Your task to perform on an android device: Add "bose quietcomfort 35" to the cart on ebay.com Image 0: 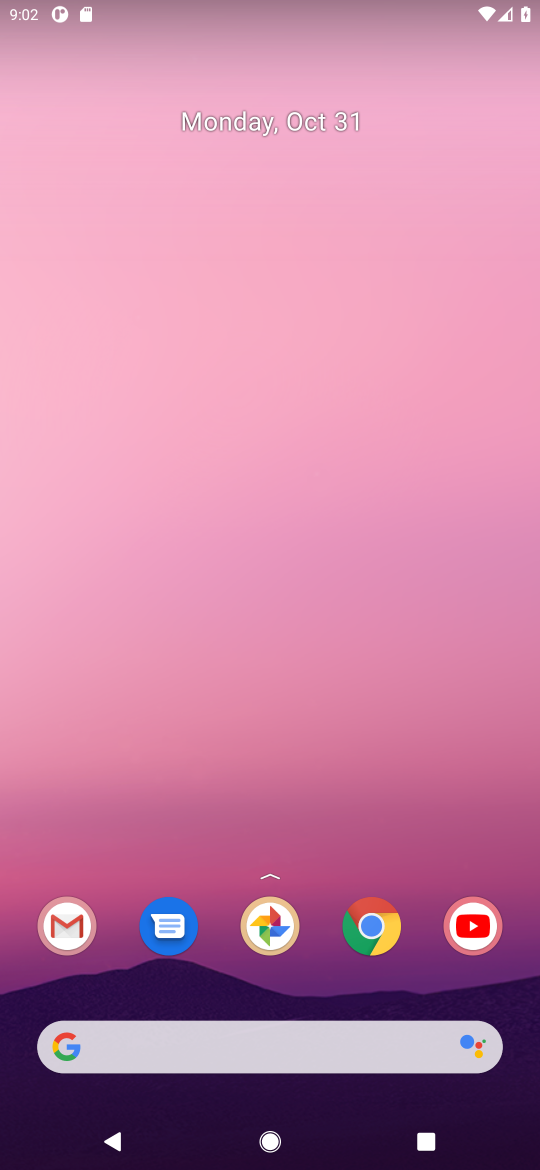
Step 0: click (378, 940)
Your task to perform on an android device: Add "bose quietcomfort 35" to the cart on ebay.com Image 1: 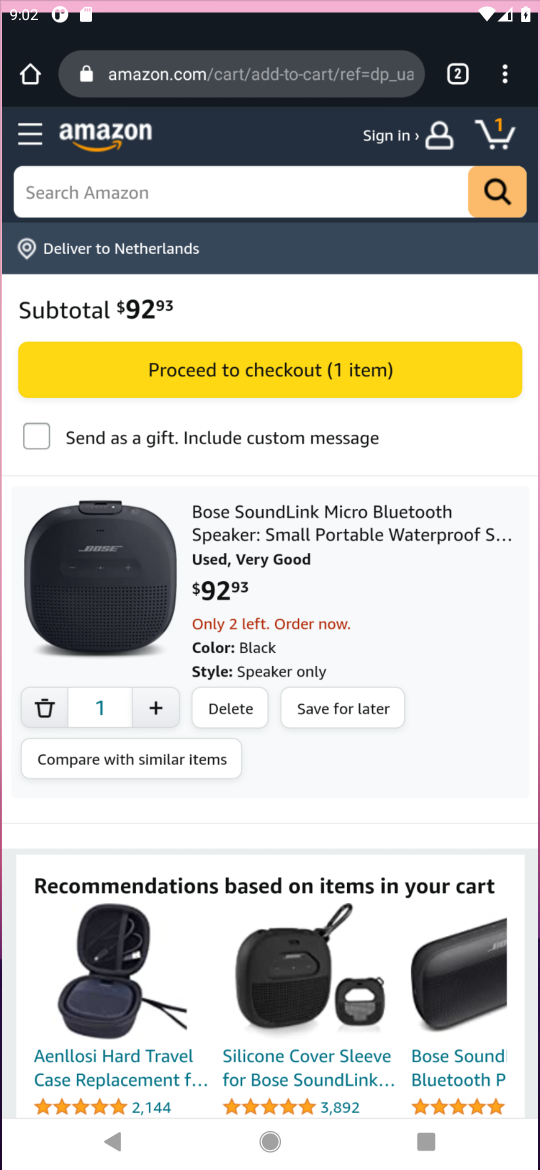
Step 1: click (378, 940)
Your task to perform on an android device: Add "bose quietcomfort 35" to the cart on ebay.com Image 2: 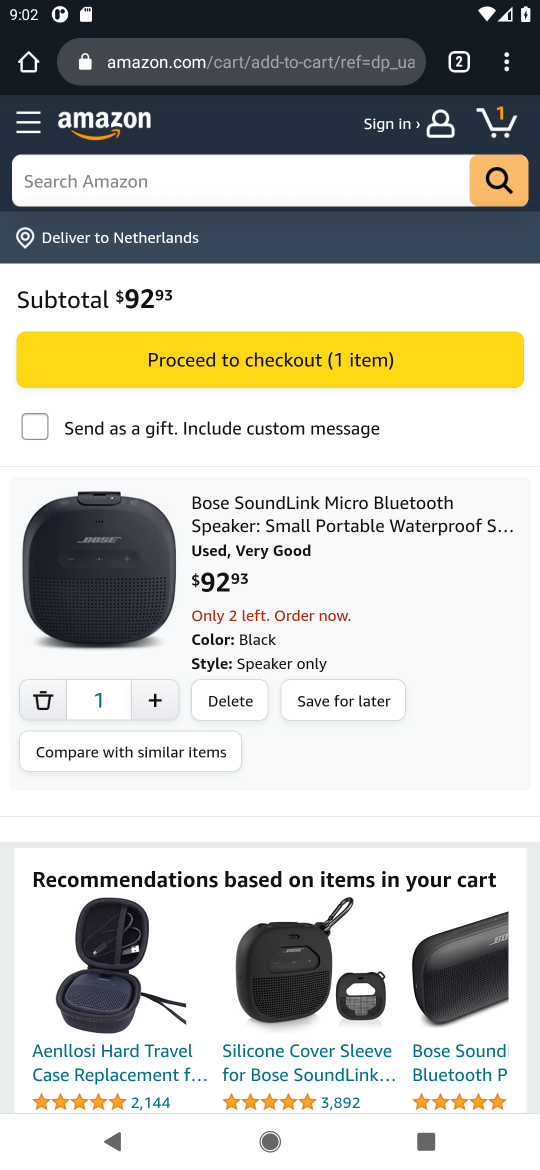
Step 2: click (461, 65)
Your task to perform on an android device: Add "bose quietcomfort 35" to the cart on ebay.com Image 3: 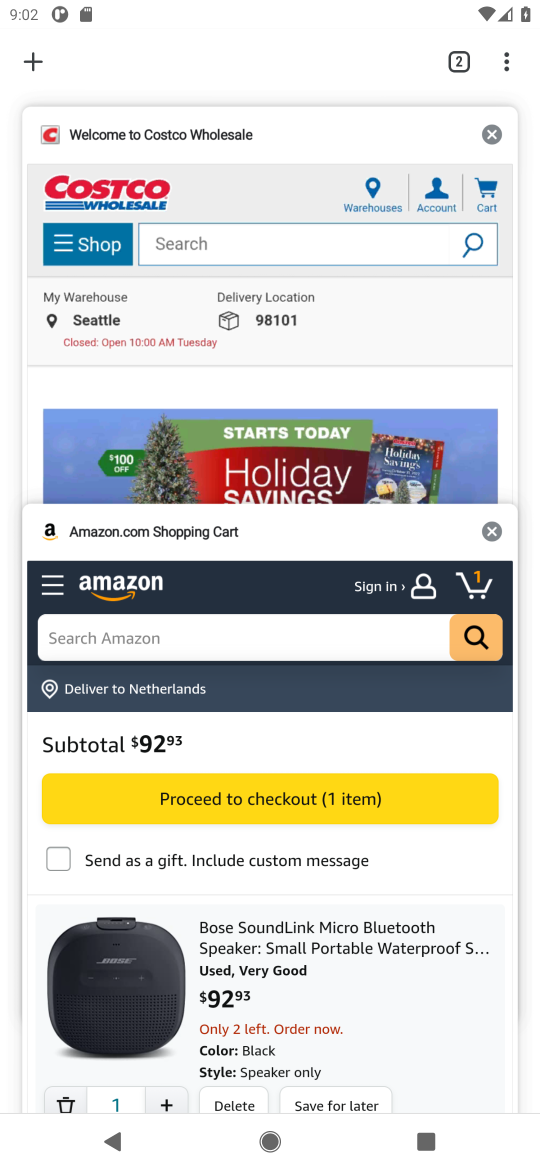
Step 3: click (32, 61)
Your task to perform on an android device: Add "bose quietcomfort 35" to the cart on ebay.com Image 4: 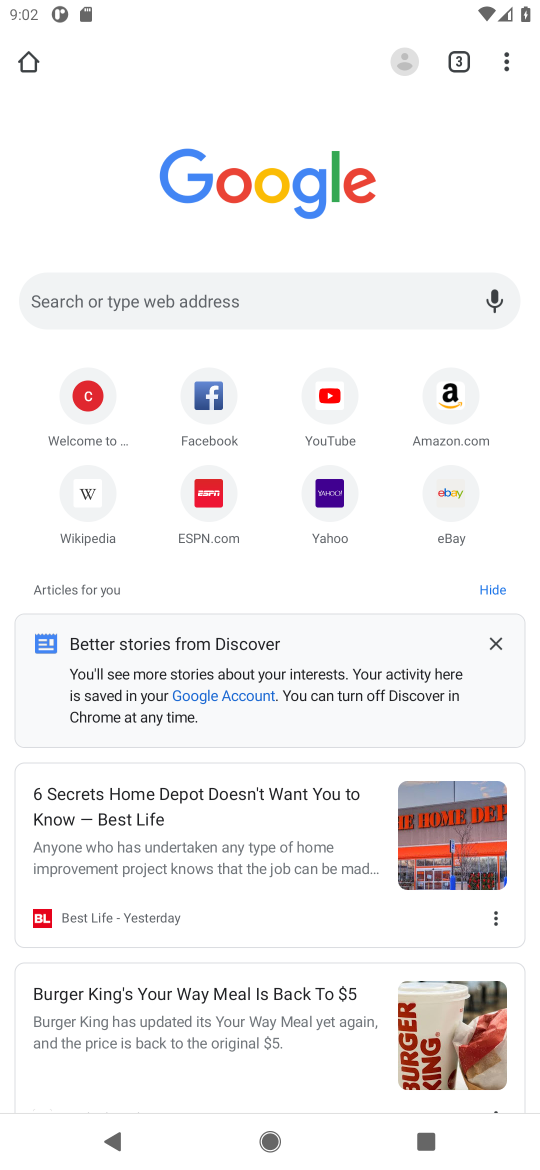
Step 4: click (245, 289)
Your task to perform on an android device: Add "bose quietcomfort 35" to the cart on ebay.com Image 5: 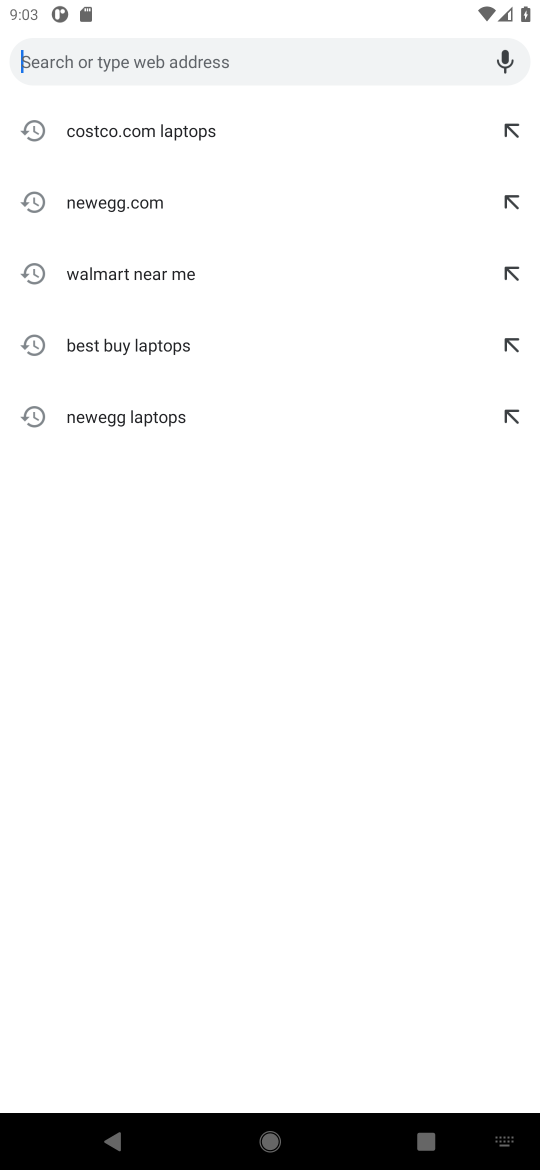
Step 5: type "newegg"
Your task to perform on an android device: Add "bose quietcomfort 35" to the cart on ebay.com Image 6: 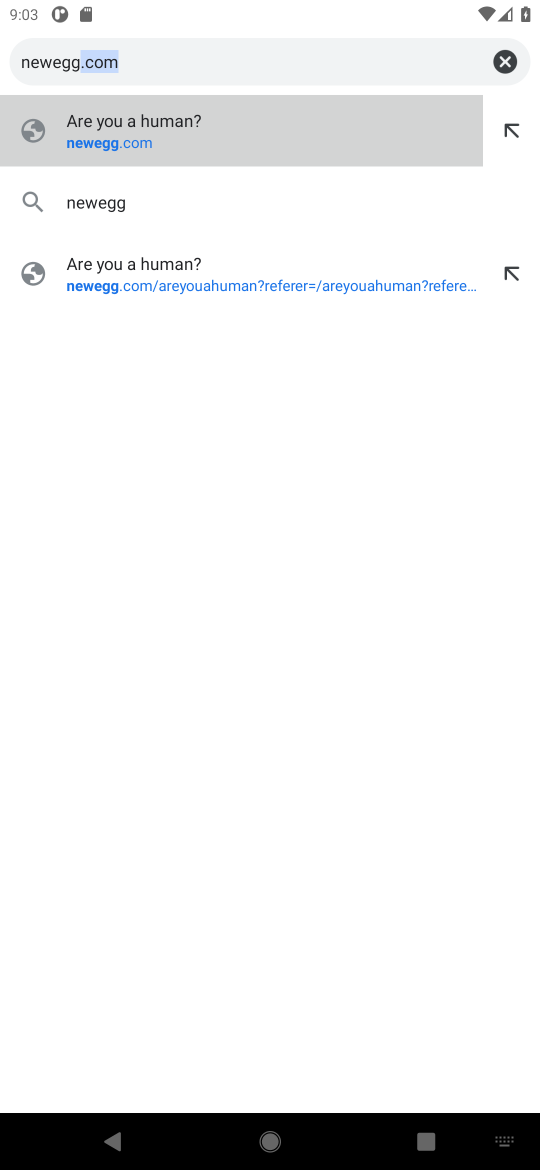
Step 6: click (110, 212)
Your task to perform on an android device: Add "bose quietcomfort 35" to the cart on ebay.com Image 7: 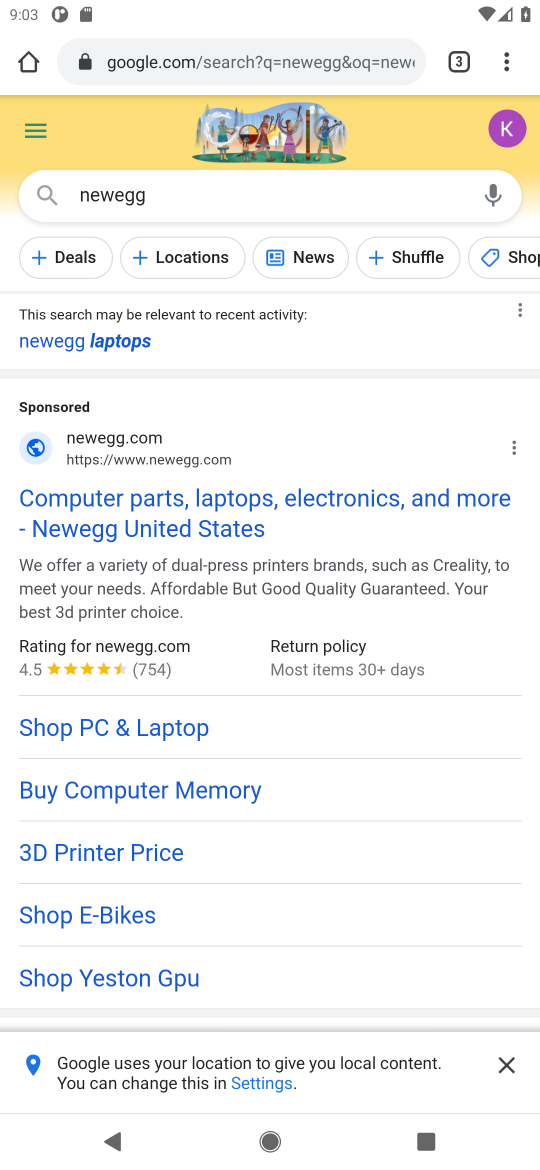
Step 7: drag from (348, 899) to (476, 237)
Your task to perform on an android device: Add "bose quietcomfort 35" to the cart on ebay.com Image 8: 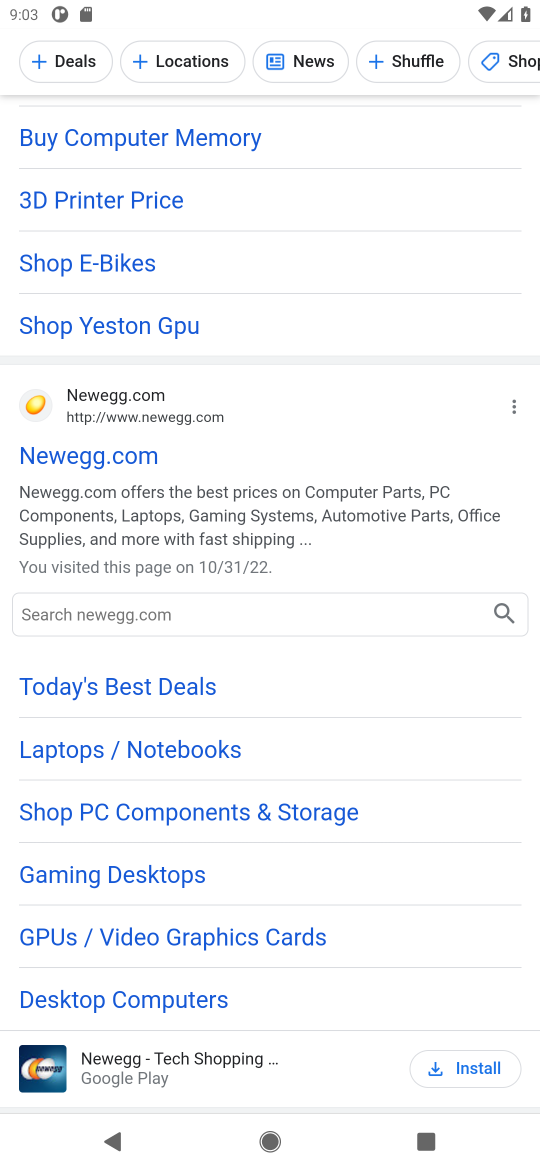
Step 8: click (129, 447)
Your task to perform on an android device: Add "bose quietcomfort 35" to the cart on ebay.com Image 9: 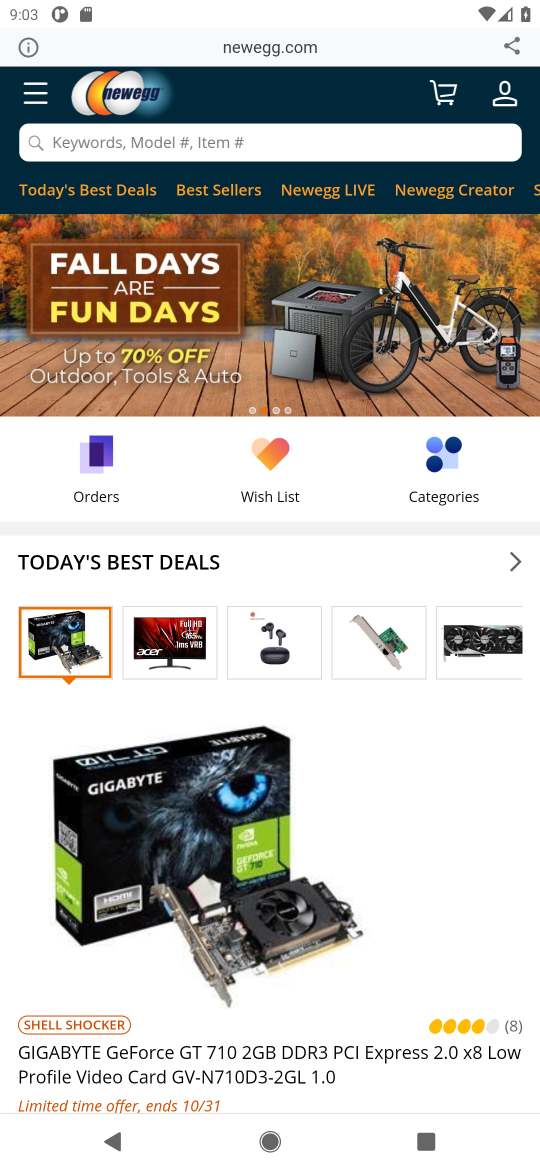
Step 9: click (264, 147)
Your task to perform on an android device: Add "bose quietcomfort 35" to the cart on ebay.com Image 10: 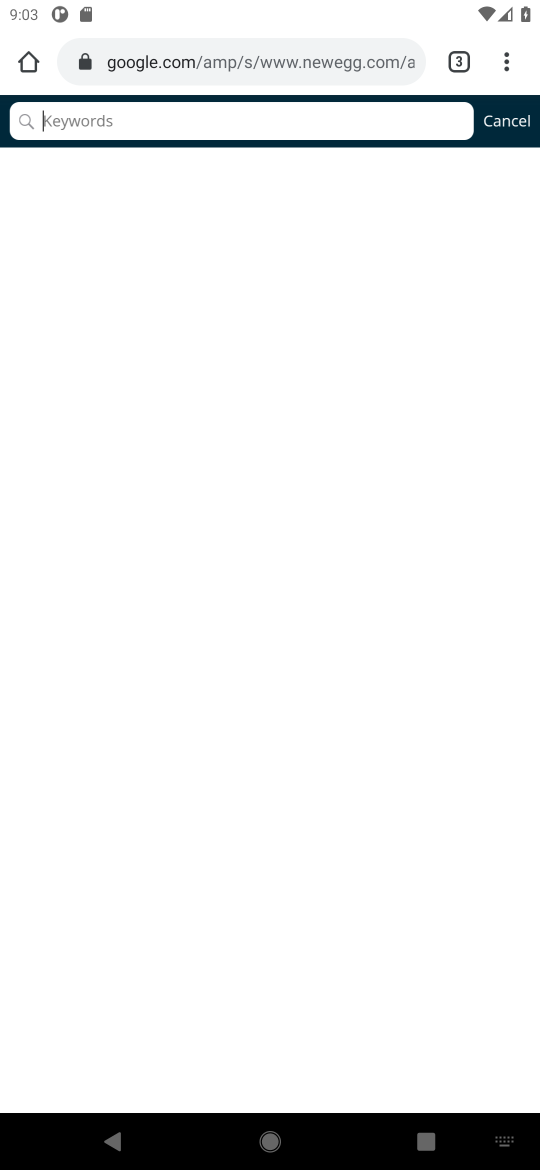
Step 10: type "bose quietcomfort 35"
Your task to perform on an android device: Add "bose quietcomfort 35" to the cart on ebay.com Image 11: 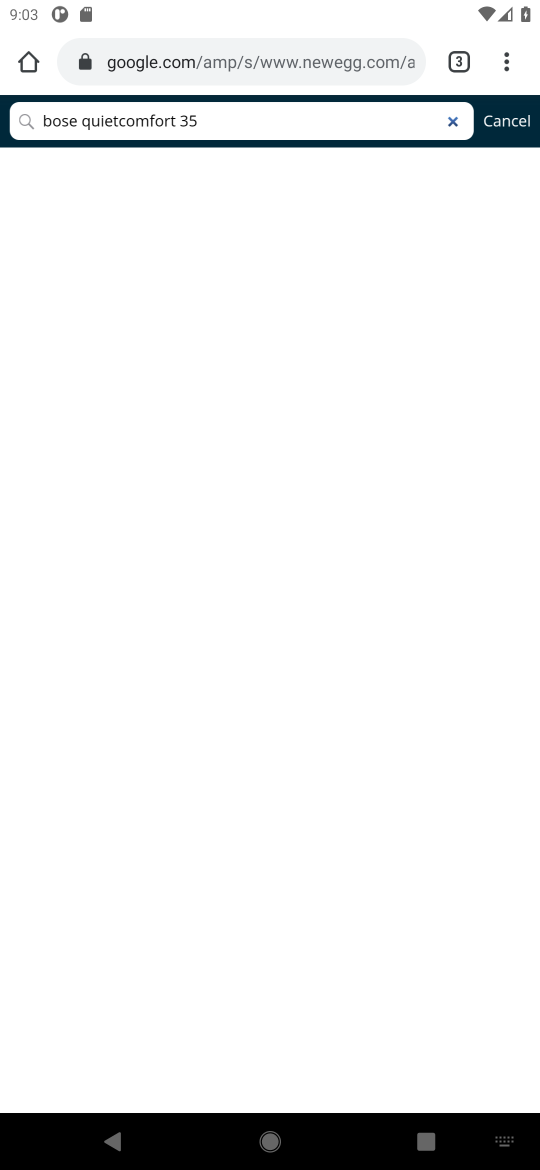
Step 11: click (454, 123)
Your task to perform on an android device: Add "bose quietcomfort 35" to the cart on ebay.com Image 12: 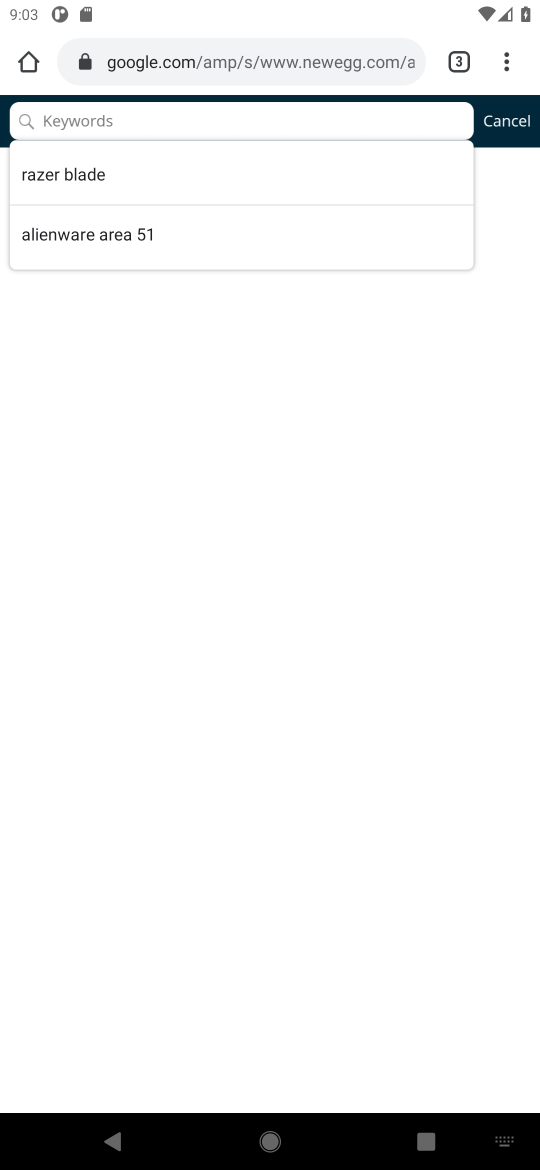
Step 12: type "bose quietcomfort"
Your task to perform on an android device: Add "bose quietcomfort 35" to the cart on ebay.com Image 13: 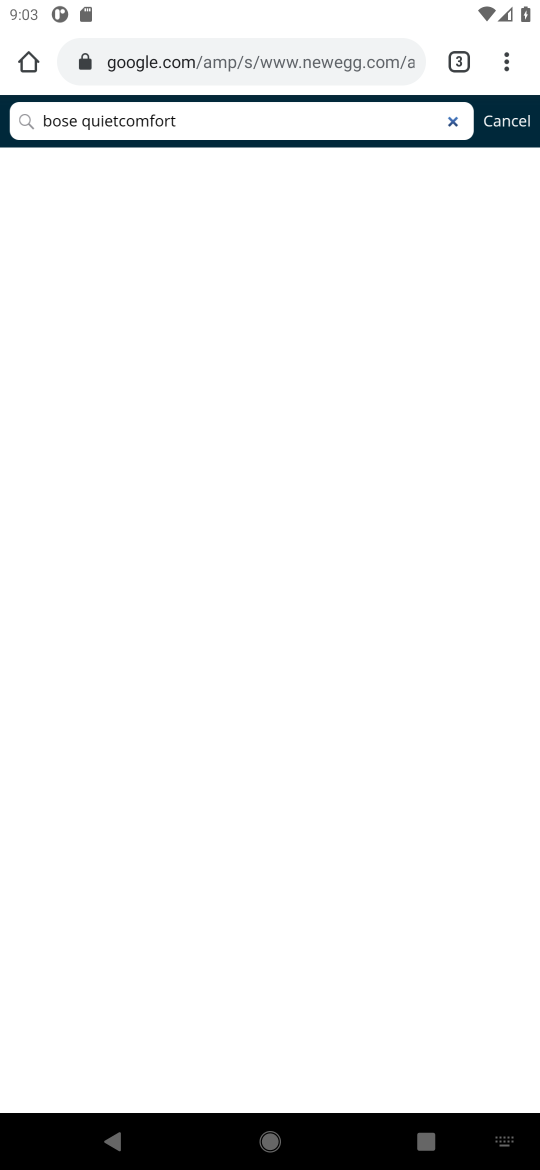
Step 13: click (445, 123)
Your task to perform on an android device: Add "bose quietcomfort 35" to the cart on ebay.com Image 14: 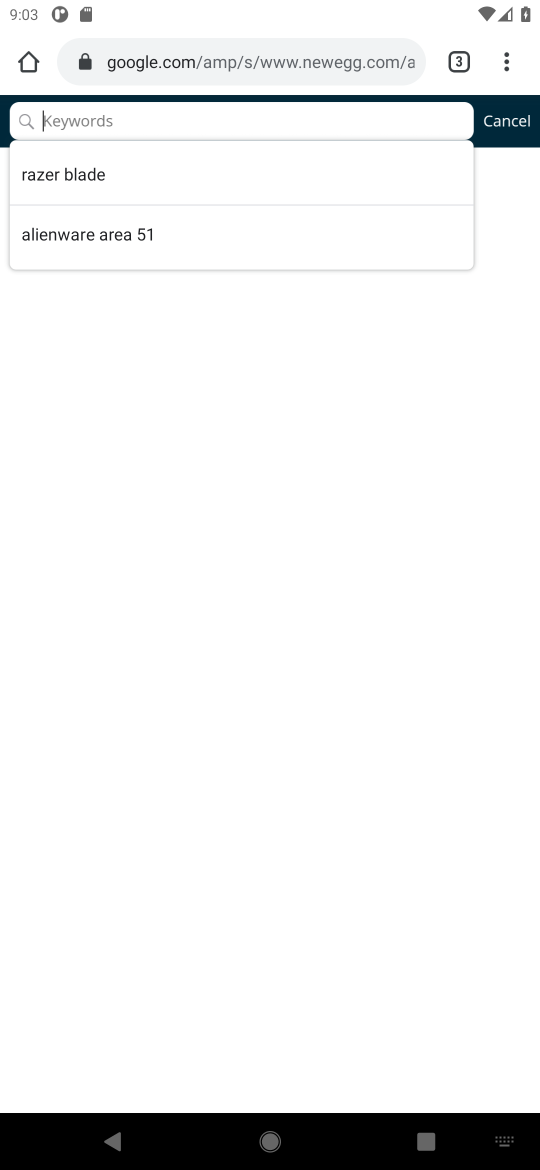
Step 14: type "bose"
Your task to perform on an android device: Add "bose quietcomfort 35" to the cart on ebay.com Image 15: 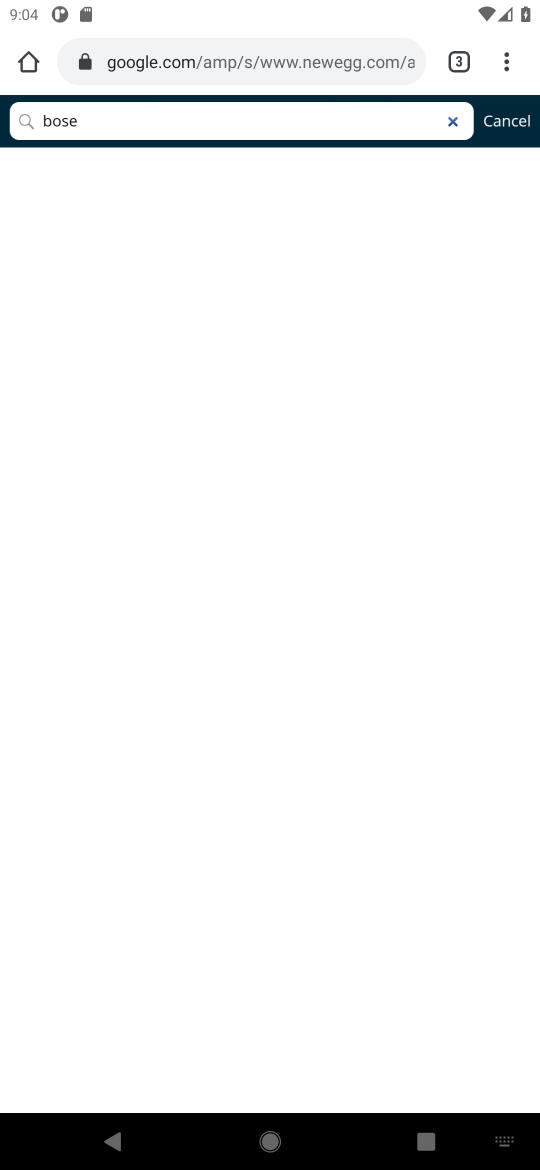
Step 15: task complete